Your task to perform on an android device: Turn off the flashlight Image 0: 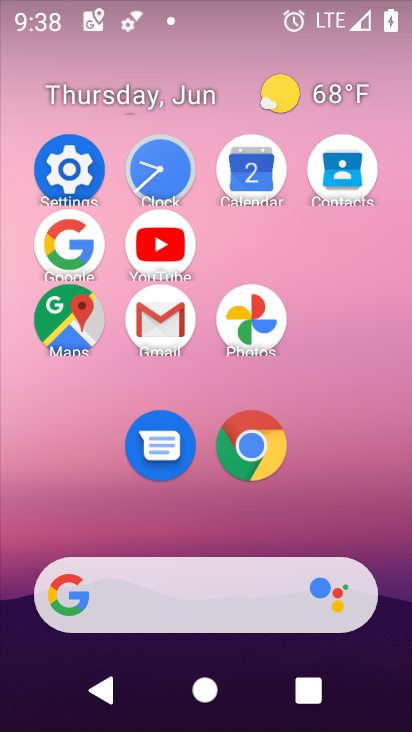
Step 0: drag from (202, 0) to (238, 387)
Your task to perform on an android device: Turn off the flashlight Image 1: 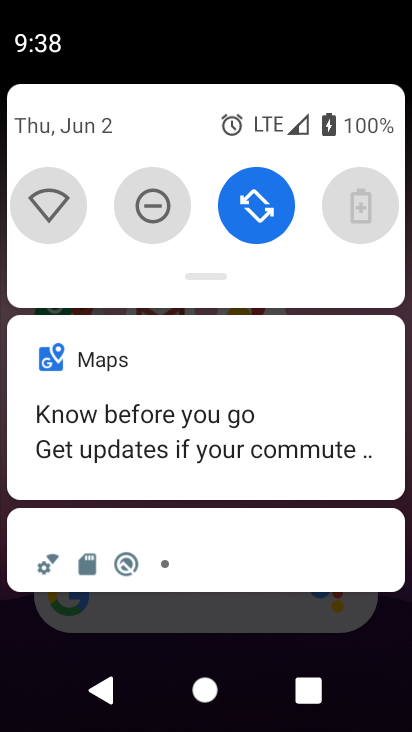
Step 1: task complete